Your task to perform on an android device: make emails show in primary in the gmail app Image 0: 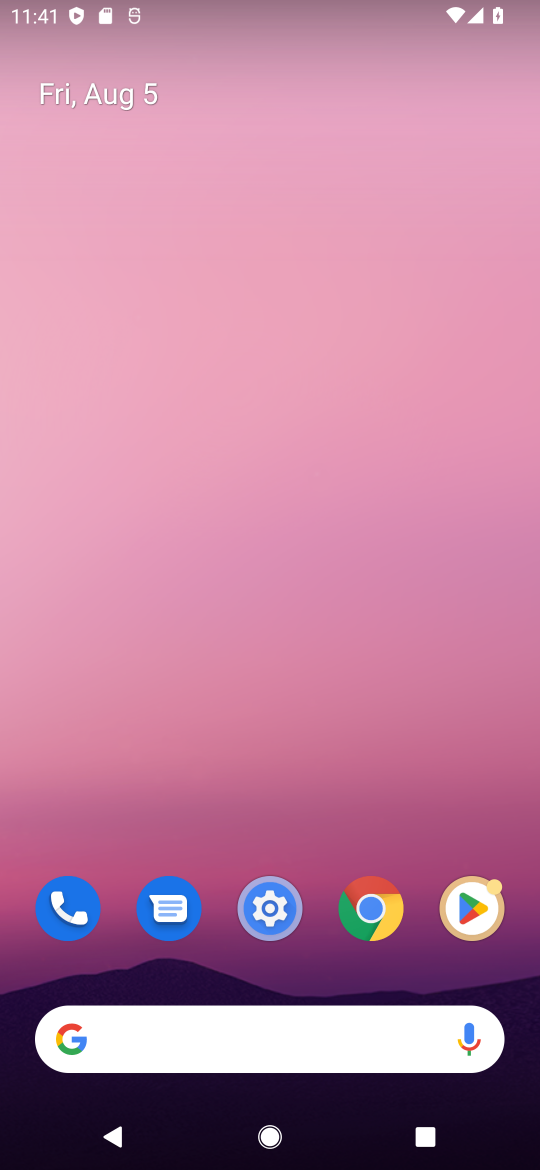
Step 0: drag from (383, 777) to (387, 0)
Your task to perform on an android device: make emails show in primary in the gmail app Image 1: 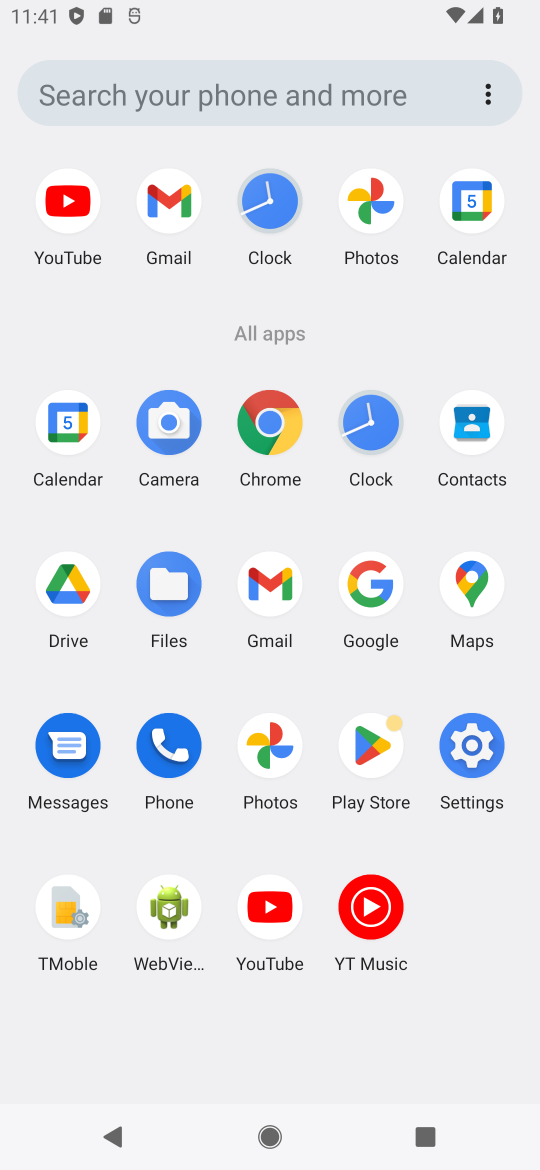
Step 1: click (286, 595)
Your task to perform on an android device: make emails show in primary in the gmail app Image 2: 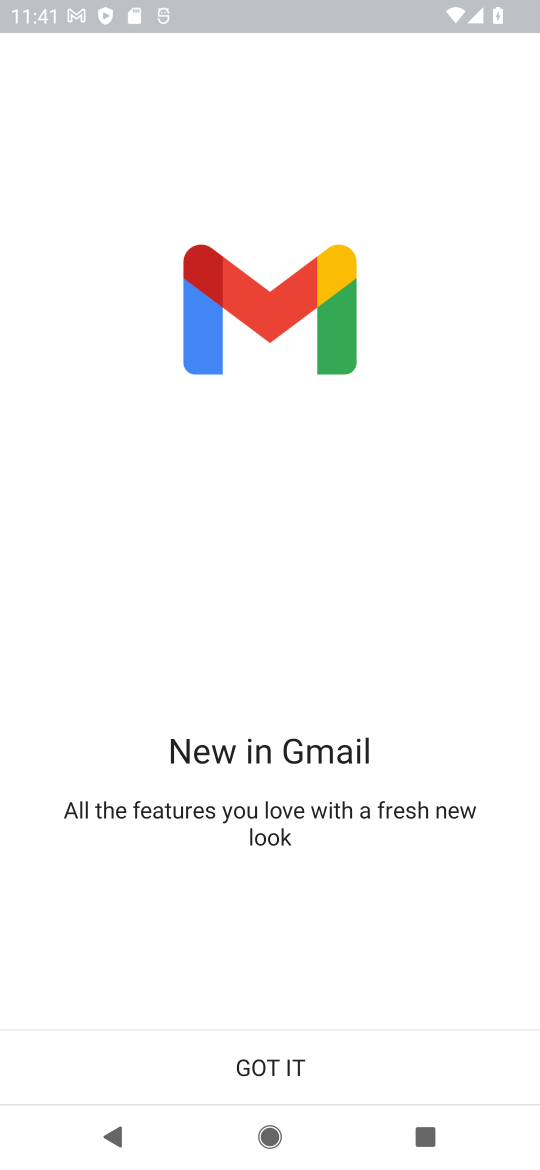
Step 2: click (286, 1047)
Your task to perform on an android device: make emails show in primary in the gmail app Image 3: 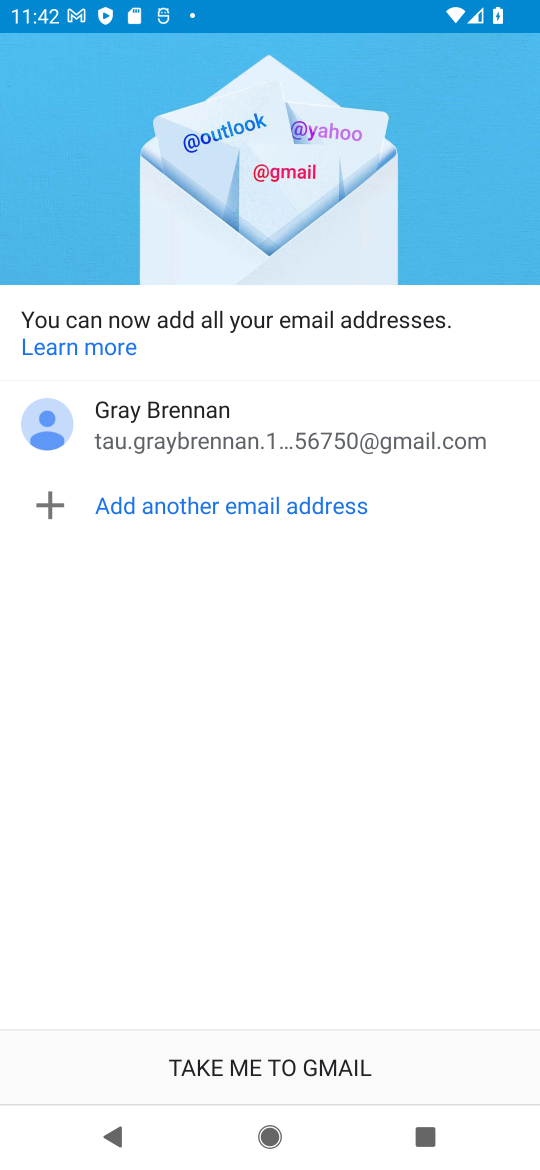
Step 3: click (265, 1043)
Your task to perform on an android device: make emails show in primary in the gmail app Image 4: 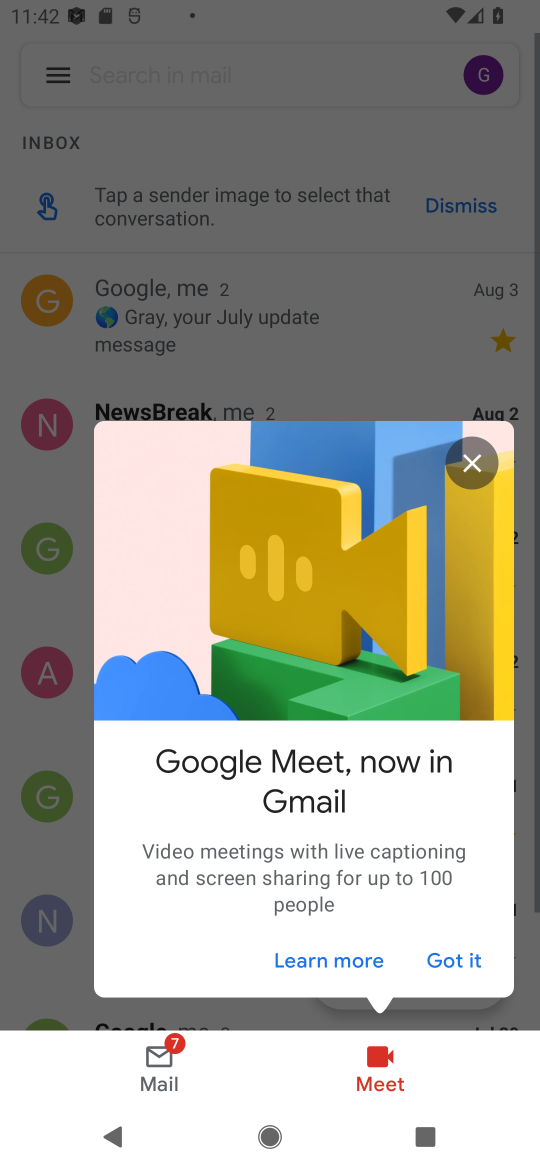
Step 4: click (429, 967)
Your task to perform on an android device: make emails show in primary in the gmail app Image 5: 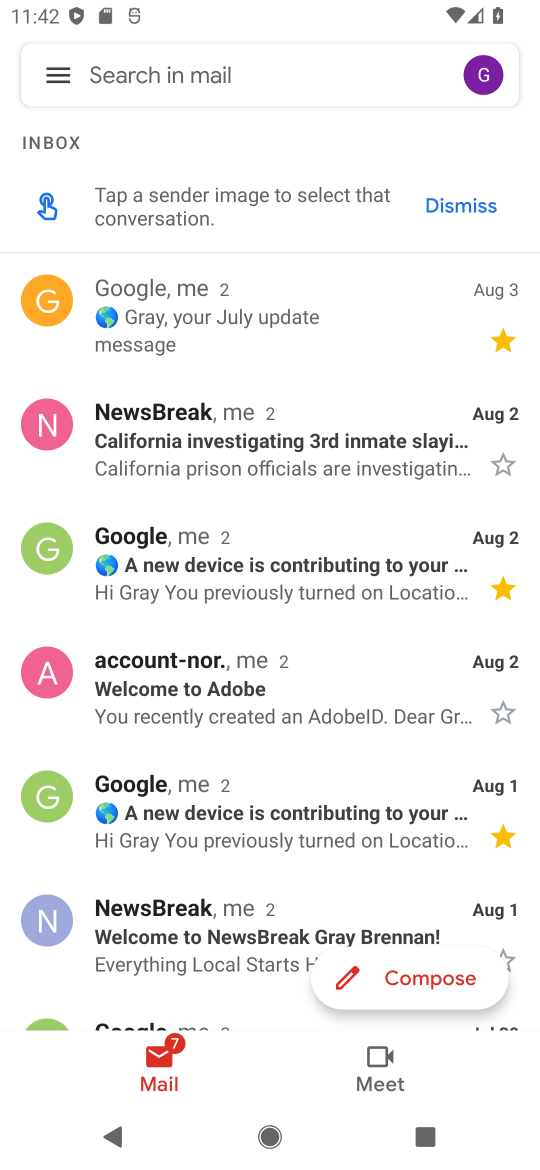
Step 5: click (49, 85)
Your task to perform on an android device: make emails show in primary in the gmail app Image 6: 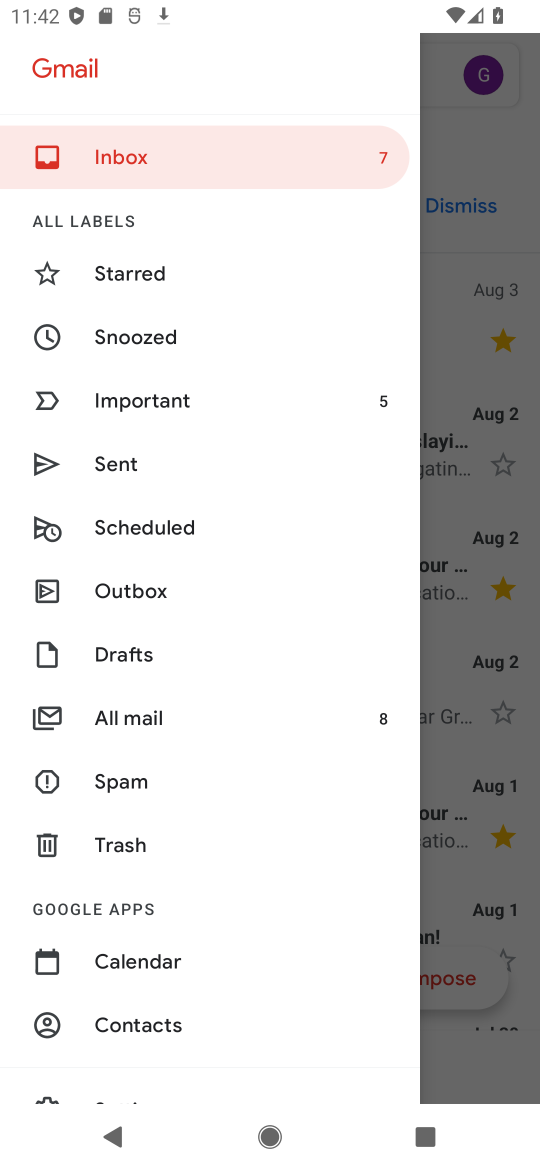
Step 6: drag from (186, 1007) to (239, 367)
Your task to perform on an android device: make emails show in primary in the gmail app Image 7: 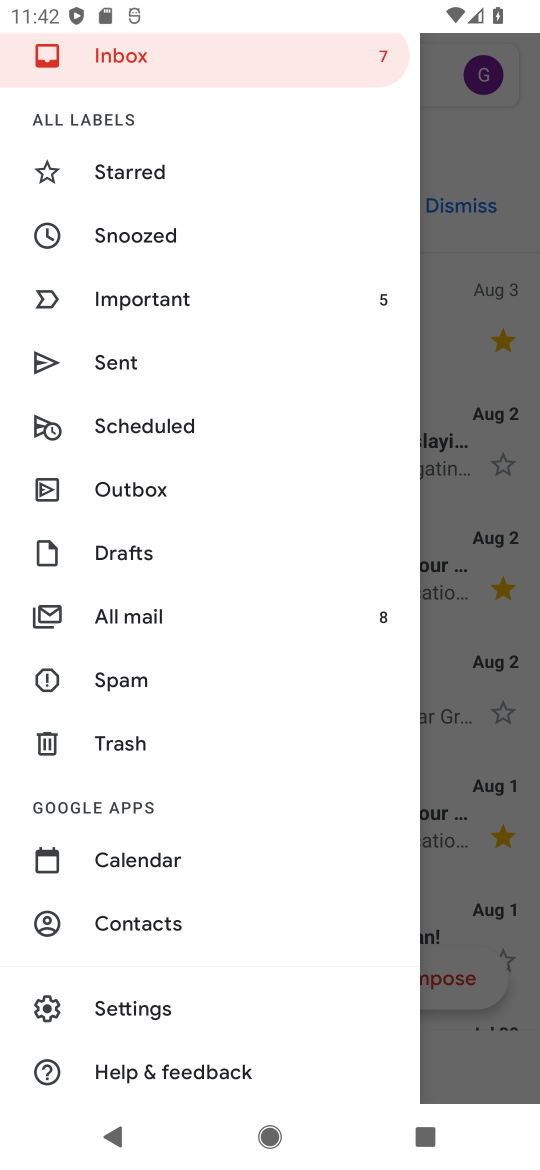
Step 7: click (110, 996)
Your task to perform on an android device: make emails show in primary in the gmail app Image 8: 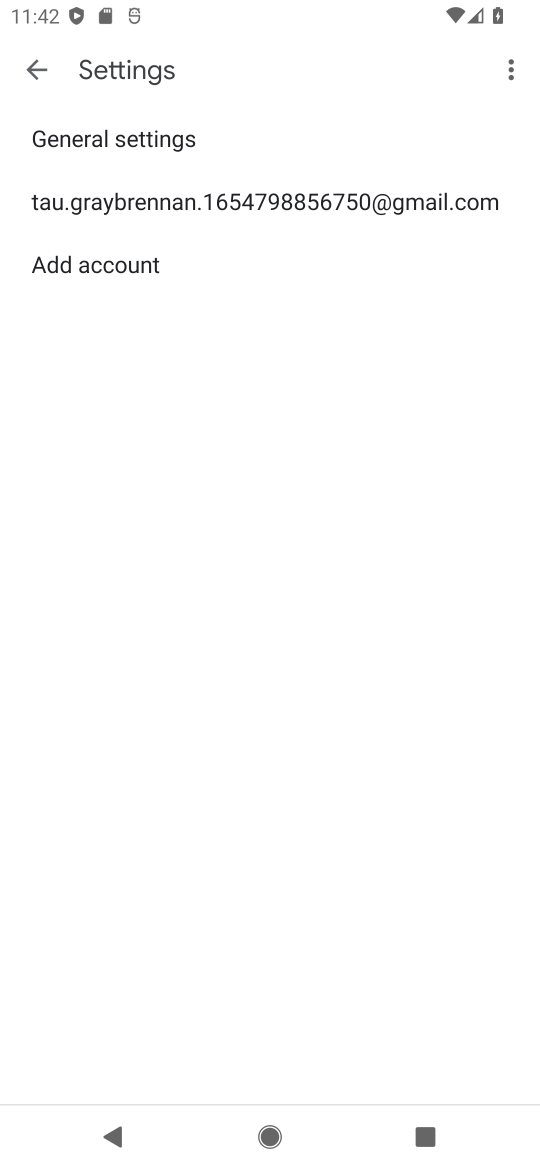
Step 8: click (232, 198)
Your task to perform on an android device: make emails show in primary in the gmail app Image 9: 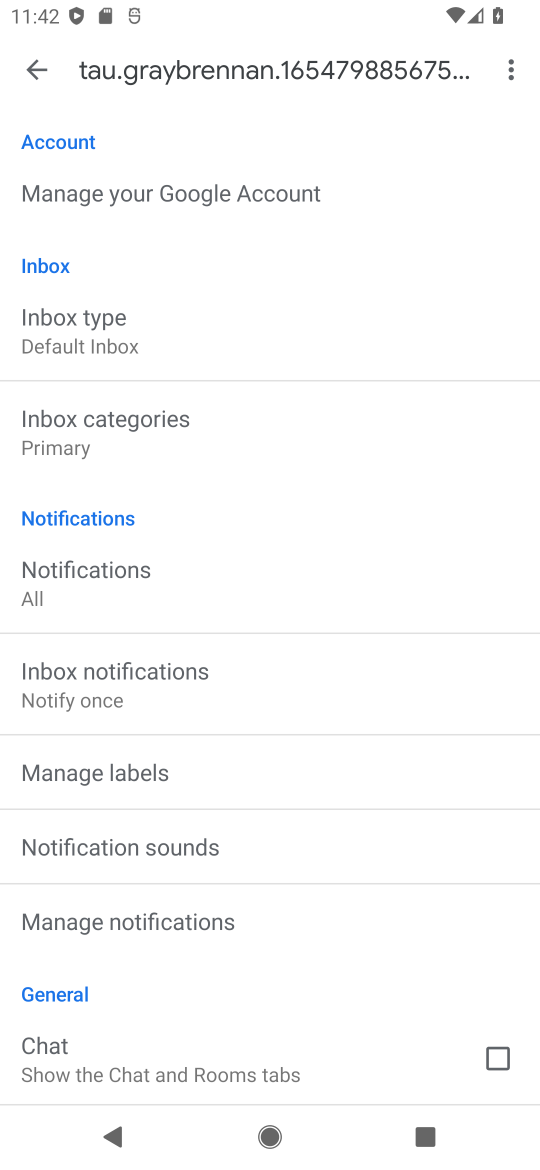
Step 9: click (52, 450)
Your task to perform on an android device: make emails show in primary in the gmail app Image 10: 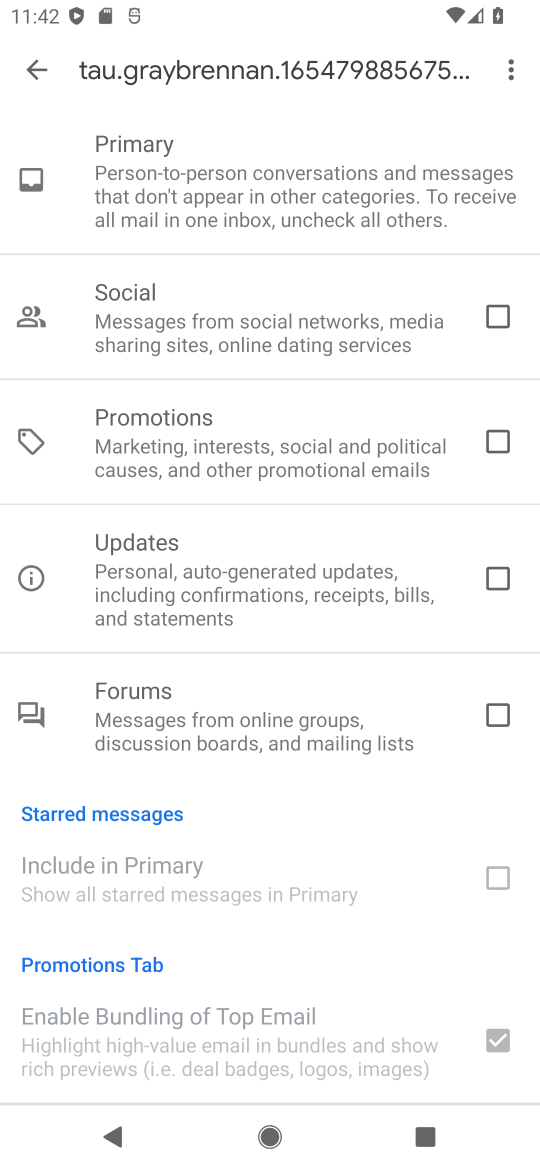
Step 10: task complete